Your task to perform on an android device: Go to battery settings Image 0: 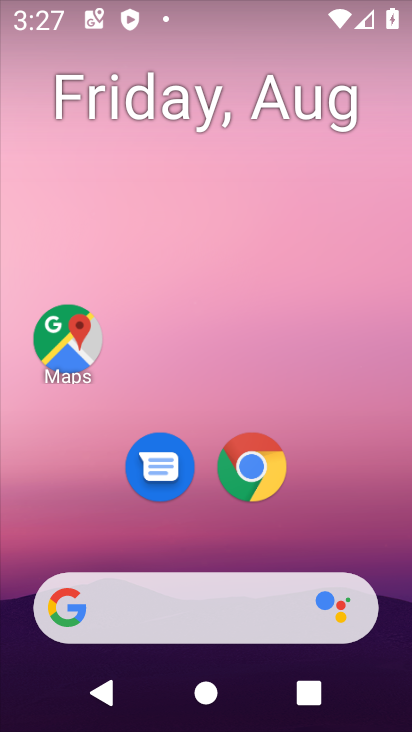
Step 0: drag from (277, 515) to (273, 11)
Your task to perform on an android device: Go to battery settings Image 1: 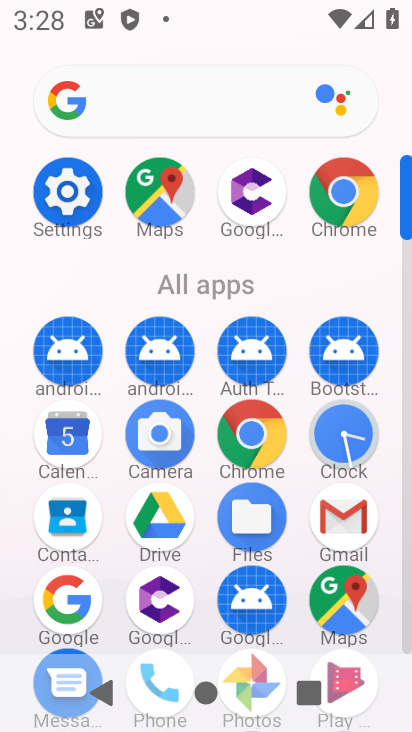
Step 1: click (72, 181)
Your task to perform on an android device: Go to battery settings Image 2: 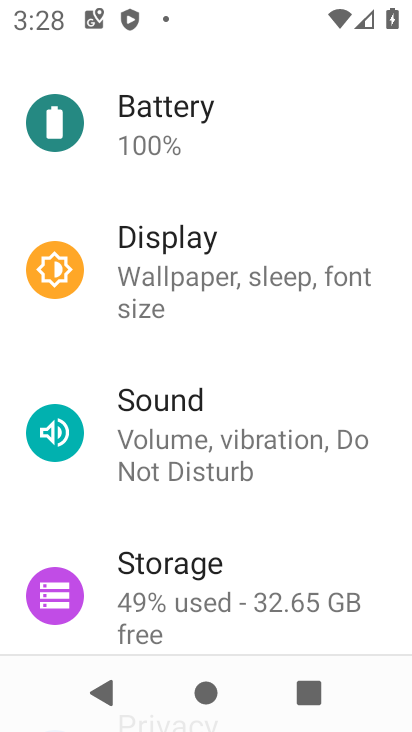
Step 2: click (143, 84)
Your task to perform on an android device: Go to battery settings Image 3: 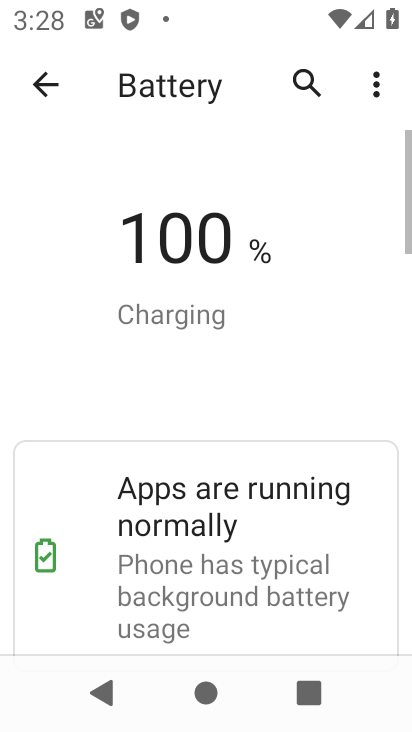
Step 3: task complete